Your task to perform on an android device: What's on my calendar tomorrow? Image 0: 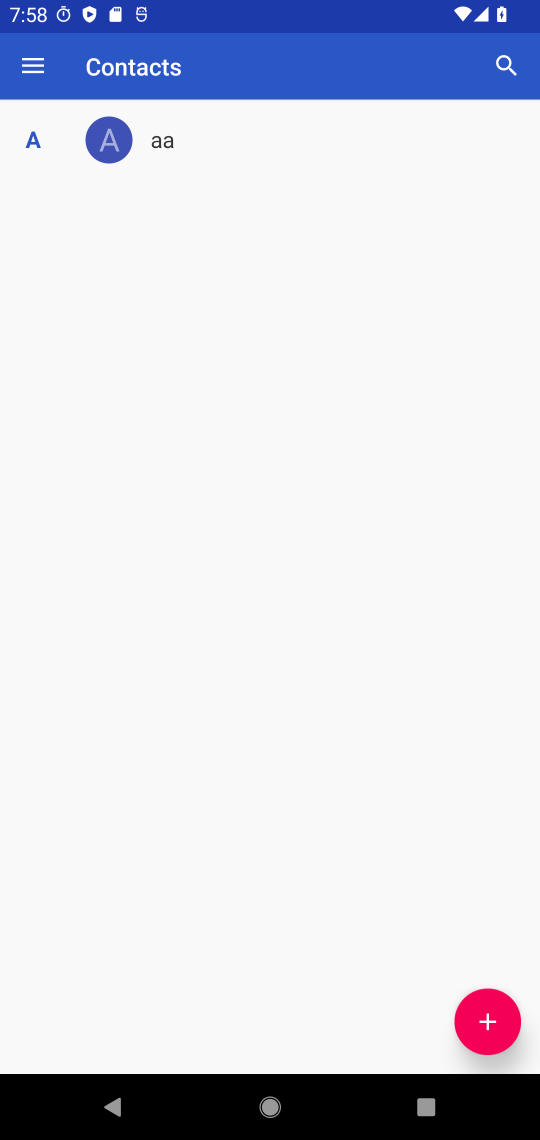
Step 0: press home button
Your task to perform on an android device: What's on my calendar tomorrow? Image 1: 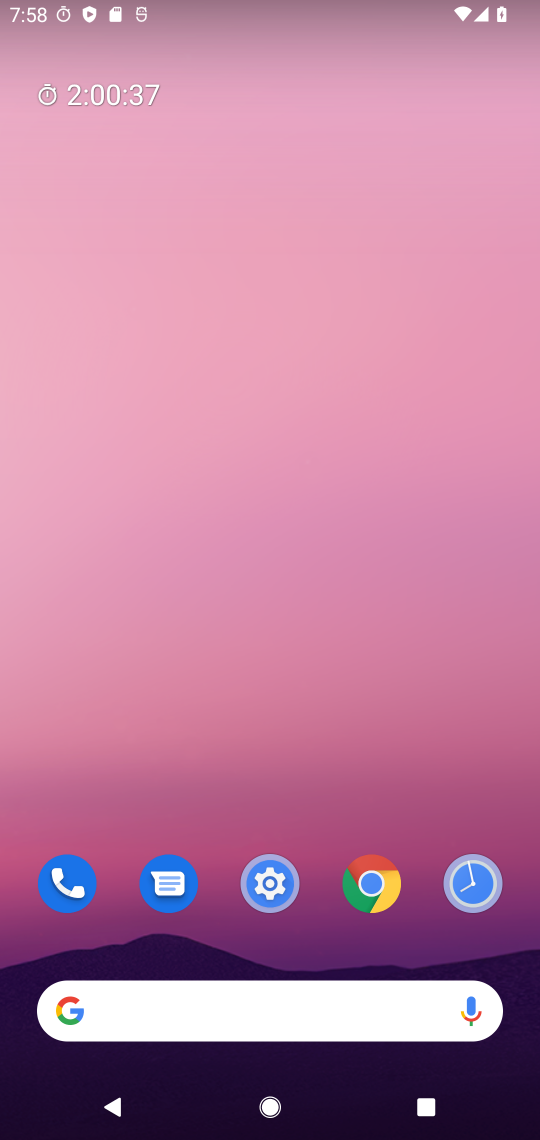
Step 1: drag from (321, 791) to (420, 49)
Your task to perform on an android device: What's on my calendar tomorrow? Image 2: 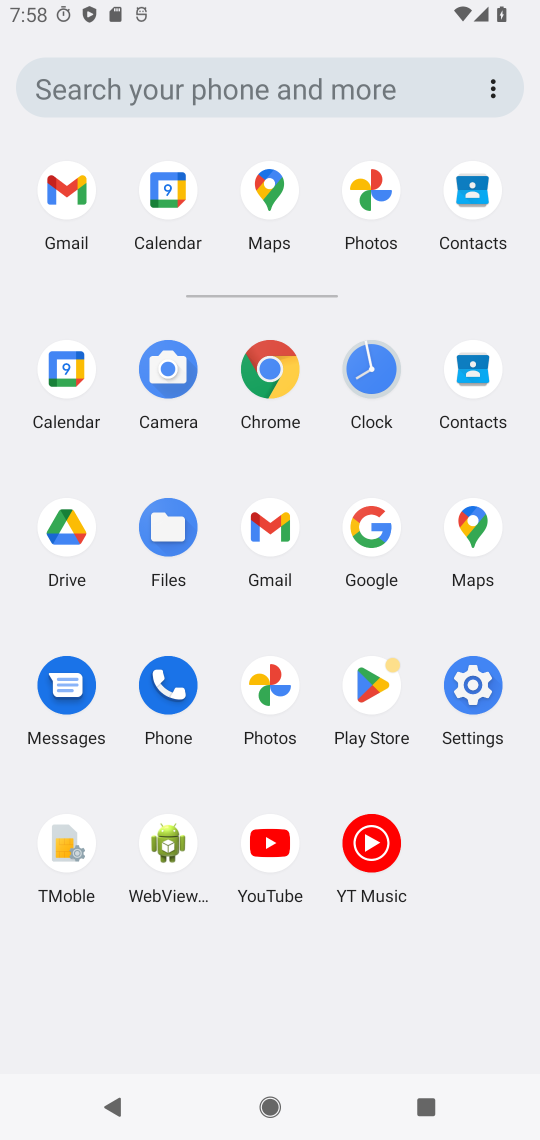
Step 2: click (70, 412)
Your task to perform on an android device: What's on my calendar tomorrow? Image 3: 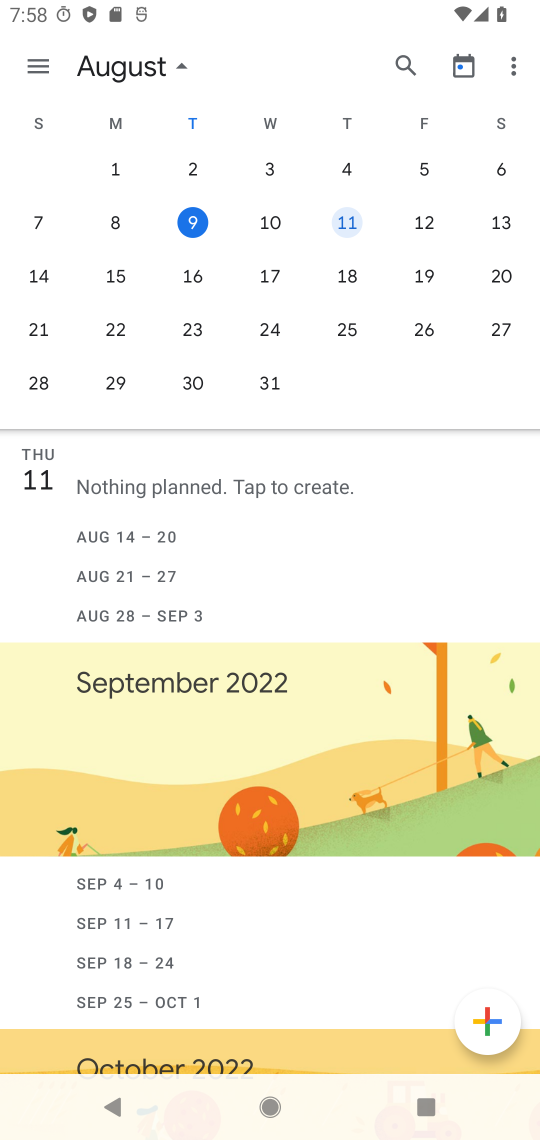
Step 3: click (262, 218)
Your task to perform on an android device: What's on my calendar tomorrow? Image 4: 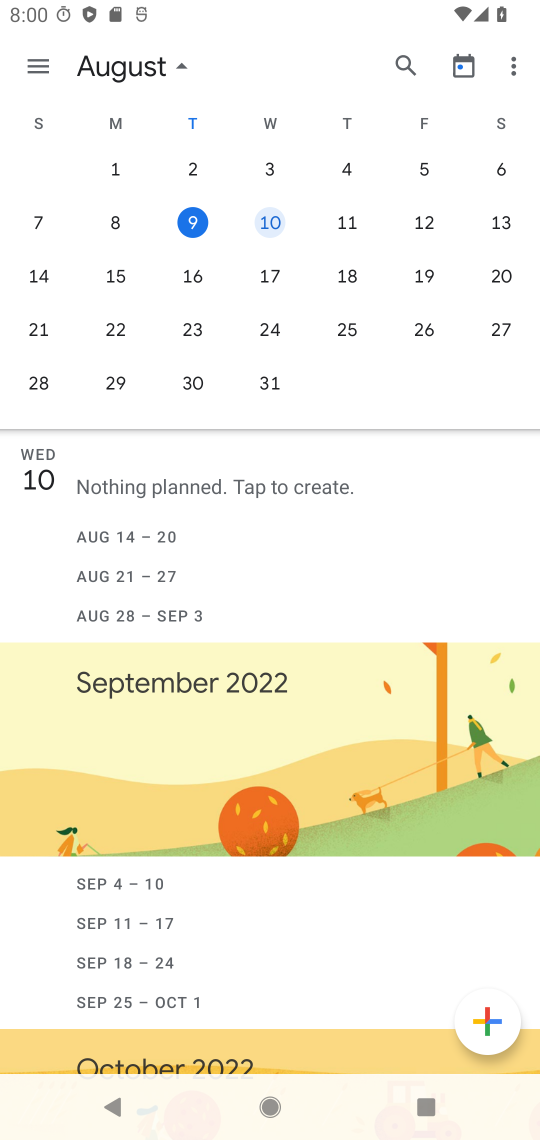
Step 4: click (259, 233)
Your task to perform on an android device: What's on my calendar tomorrow? Image 5: 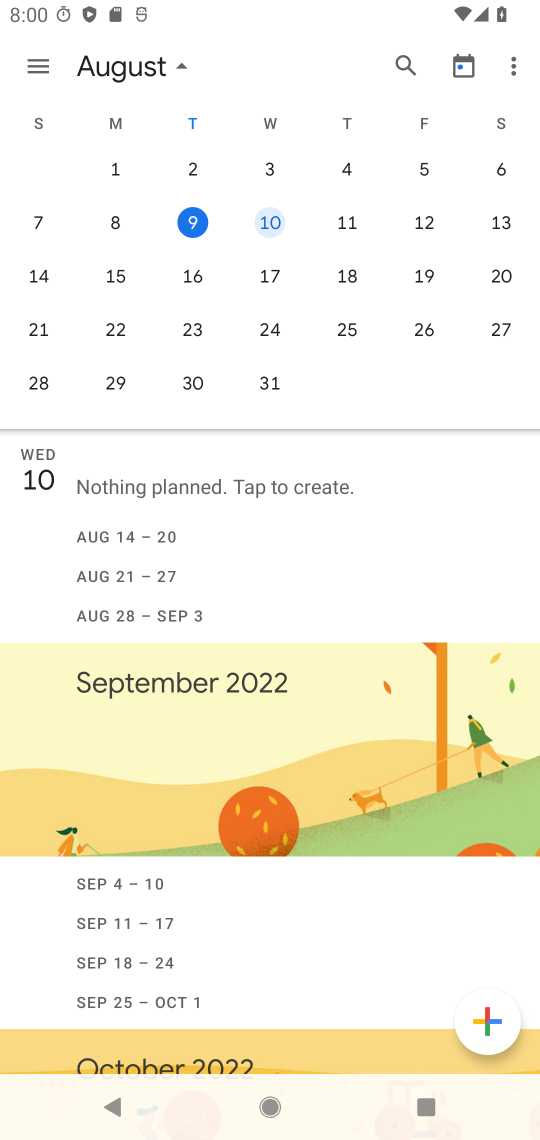
Step 5: task complete